Your task to perform on an android device: Go to display settings Image 0: 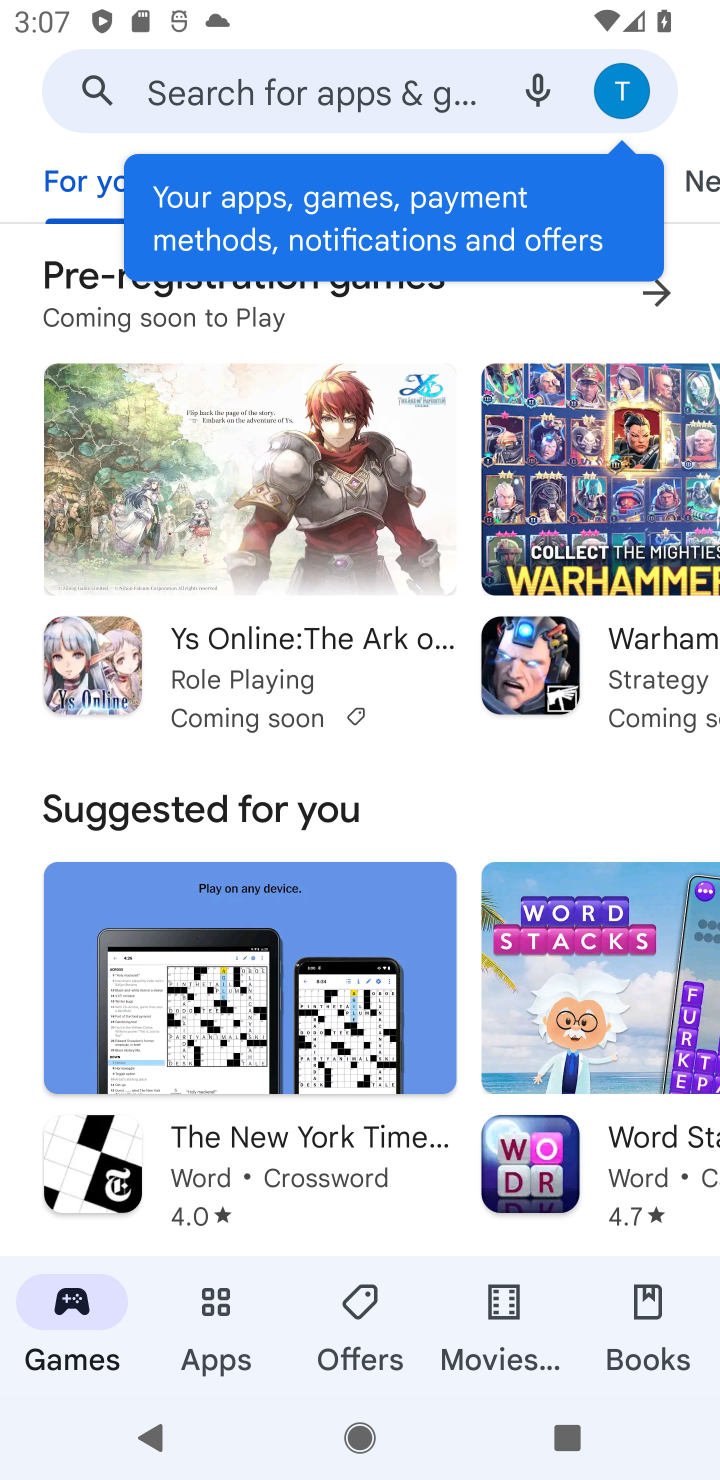
Step 0: press home button
Your task to perform on an android device: Go to display settings Image 1: 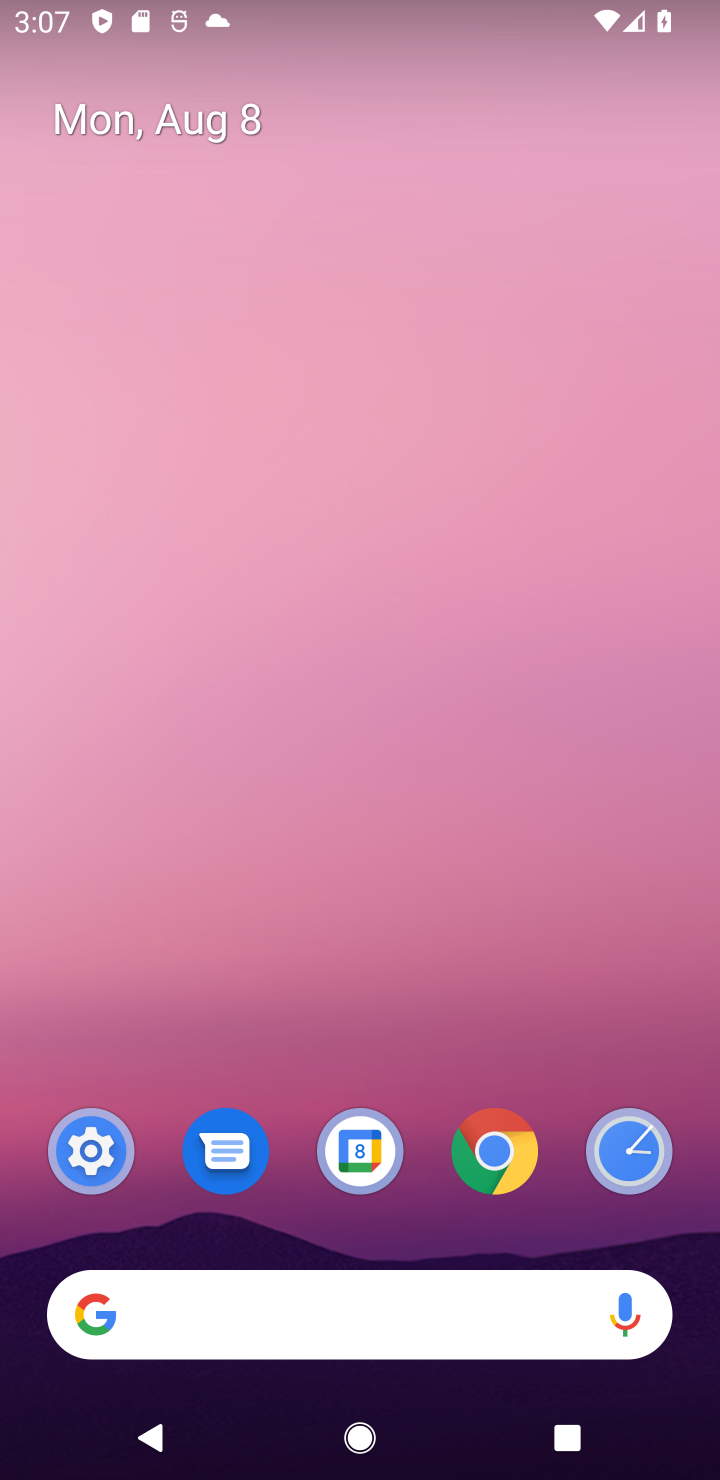
Step 1: click (95, 1120)
Your task to perform on an android device: Go to display settings Image 2: 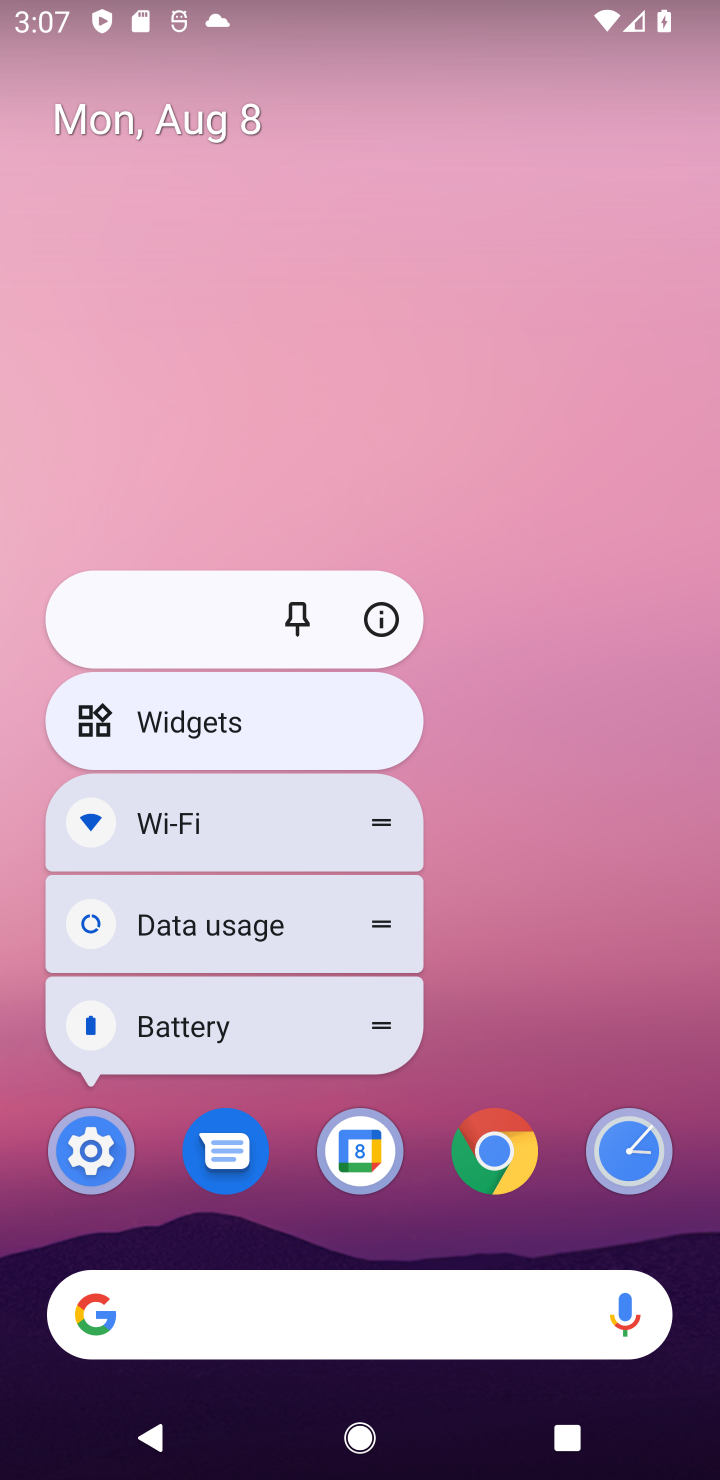
Step 2: click (84, 1123)
Your task to perform on an android device: Go to display settings Image 3: 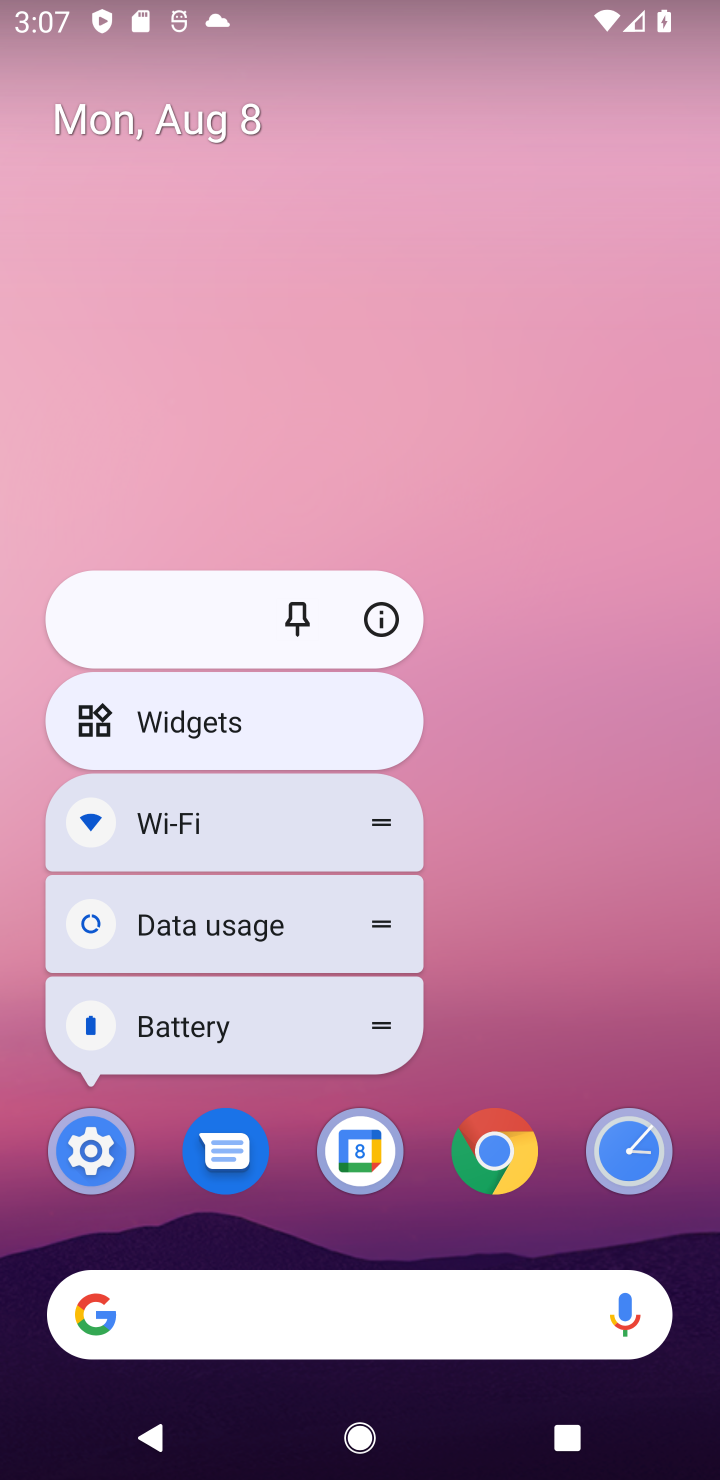
Step 3: click (89, 1163)
Your task to perform on an android device: Go to display settings Image 4: 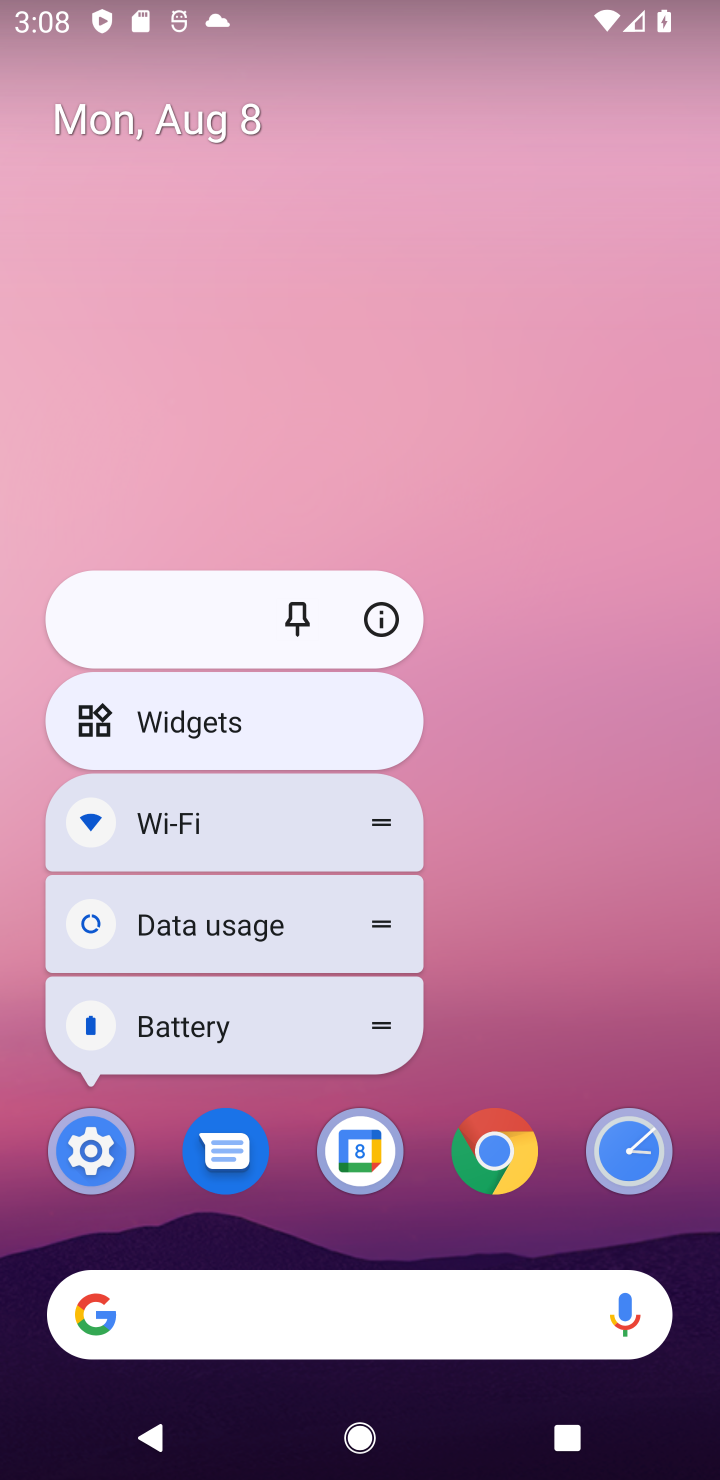
Step 4: click (96, 1158)
Your task to perform on an android device: Go to display settings Image 5: 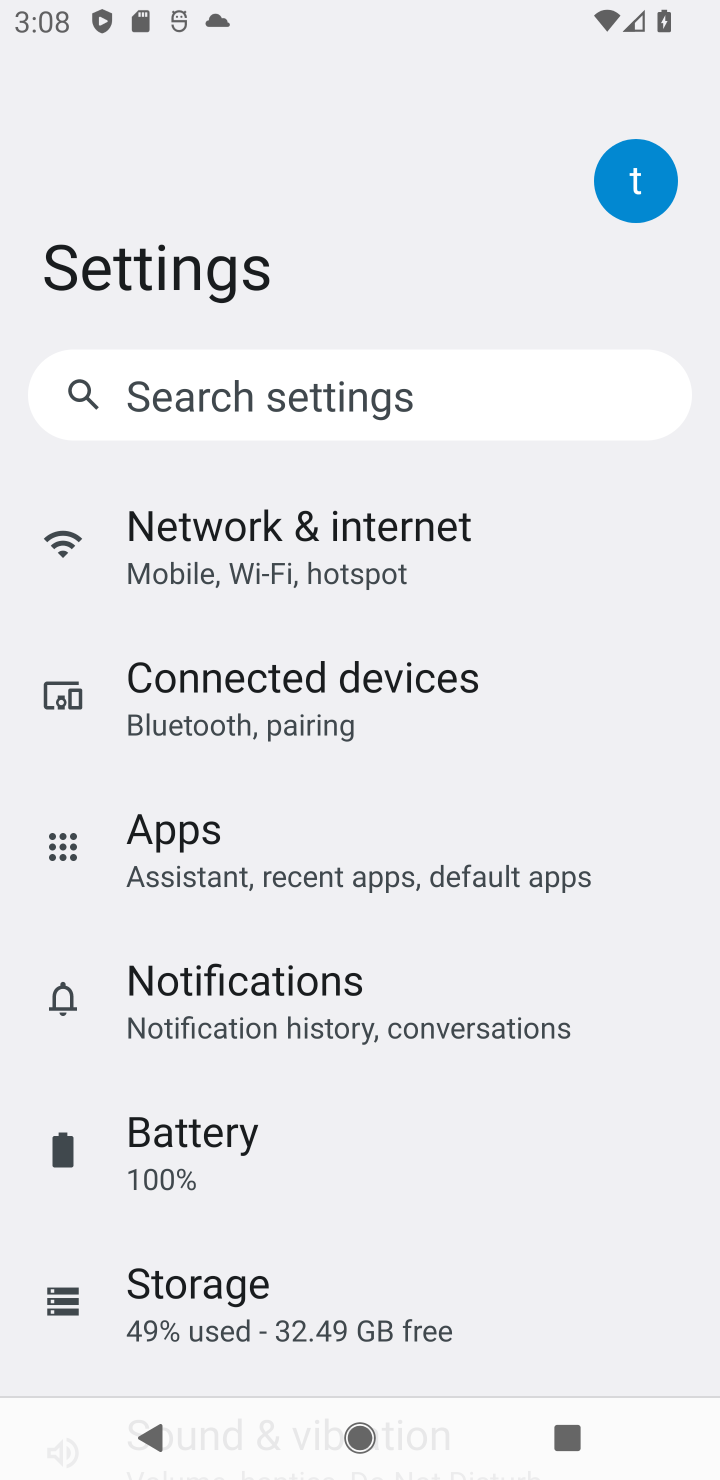
Step 5: drag from (273, 1026) to (426, 438)
Your task to perform on an android device: Go to display settings Image 6: 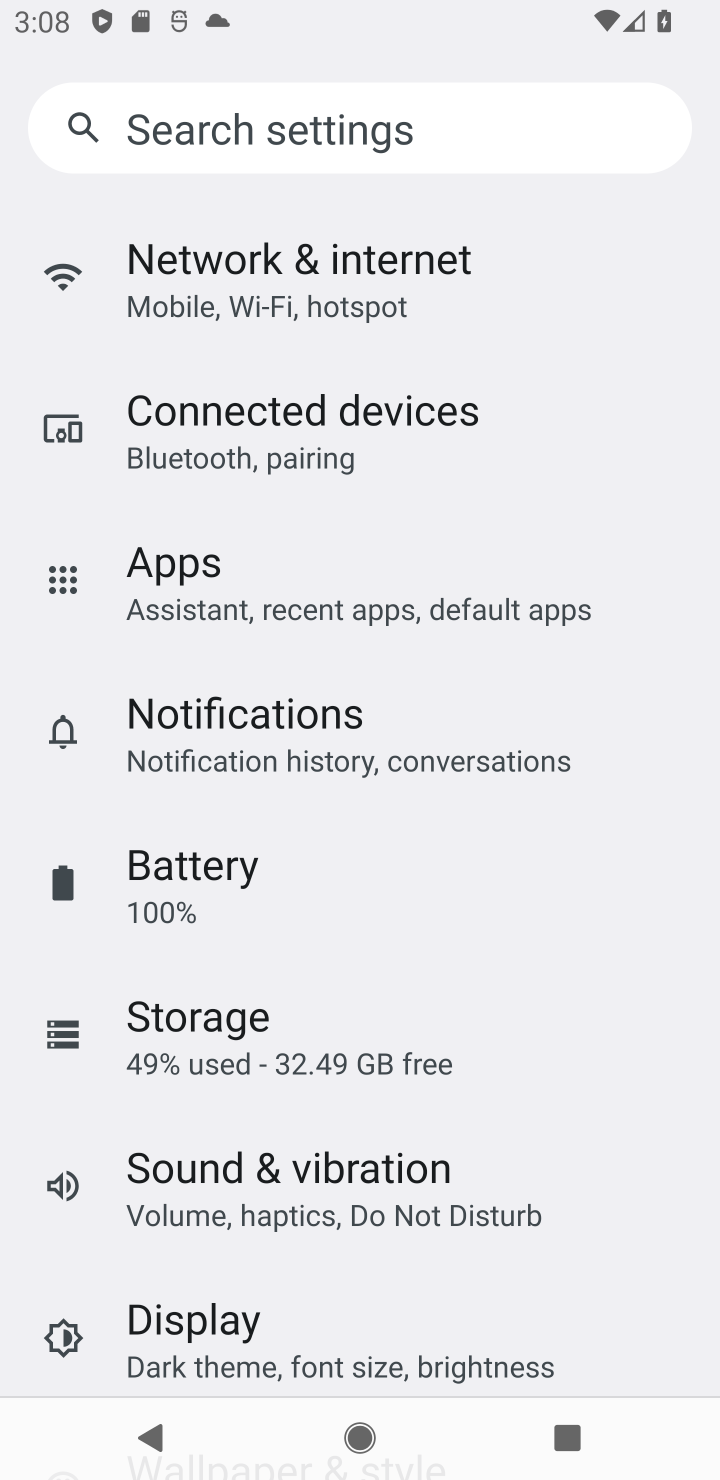
Step 6: drag from (344, 1226) to (415, 793)
Your task to perform on an android device: Go to display settings Image 7: 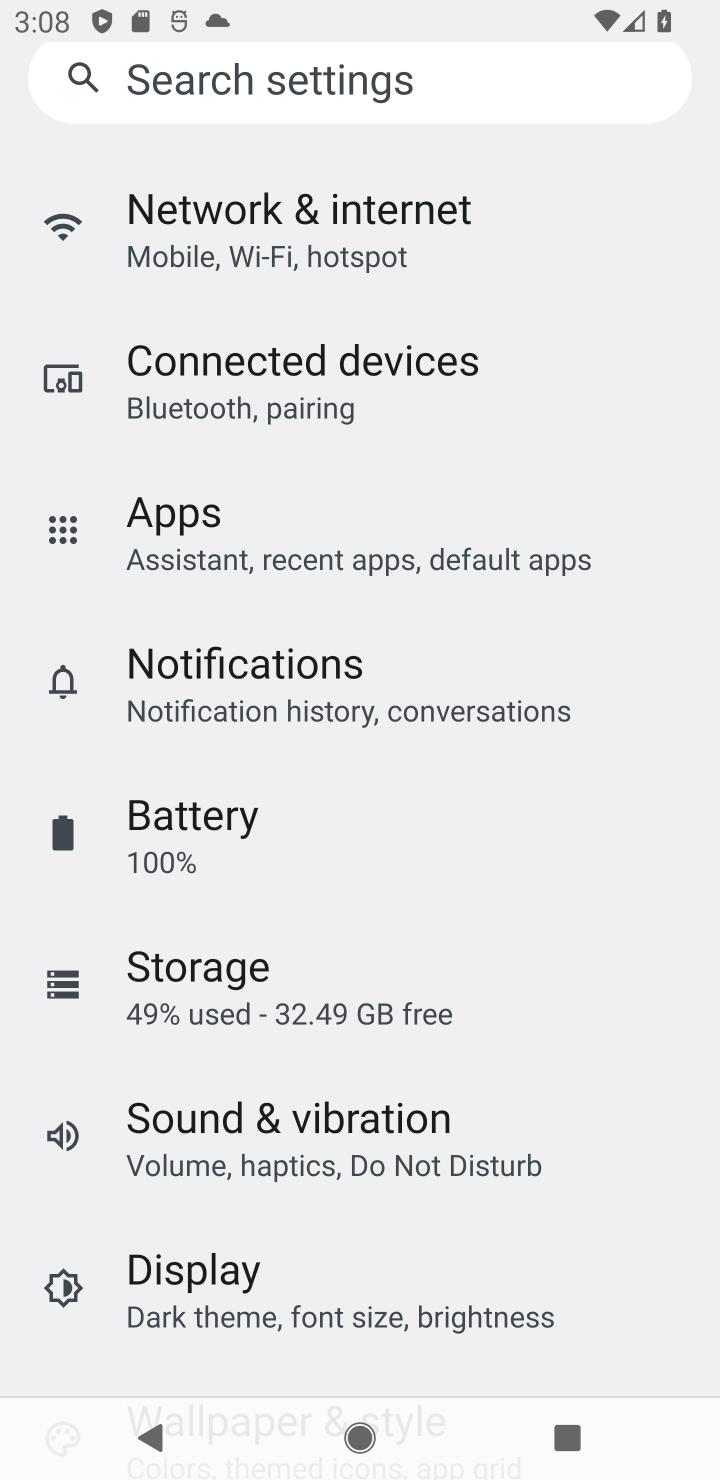
Step 7: click (187, 1310)
Your task to perform on an android device: Go to display settings Image 8: 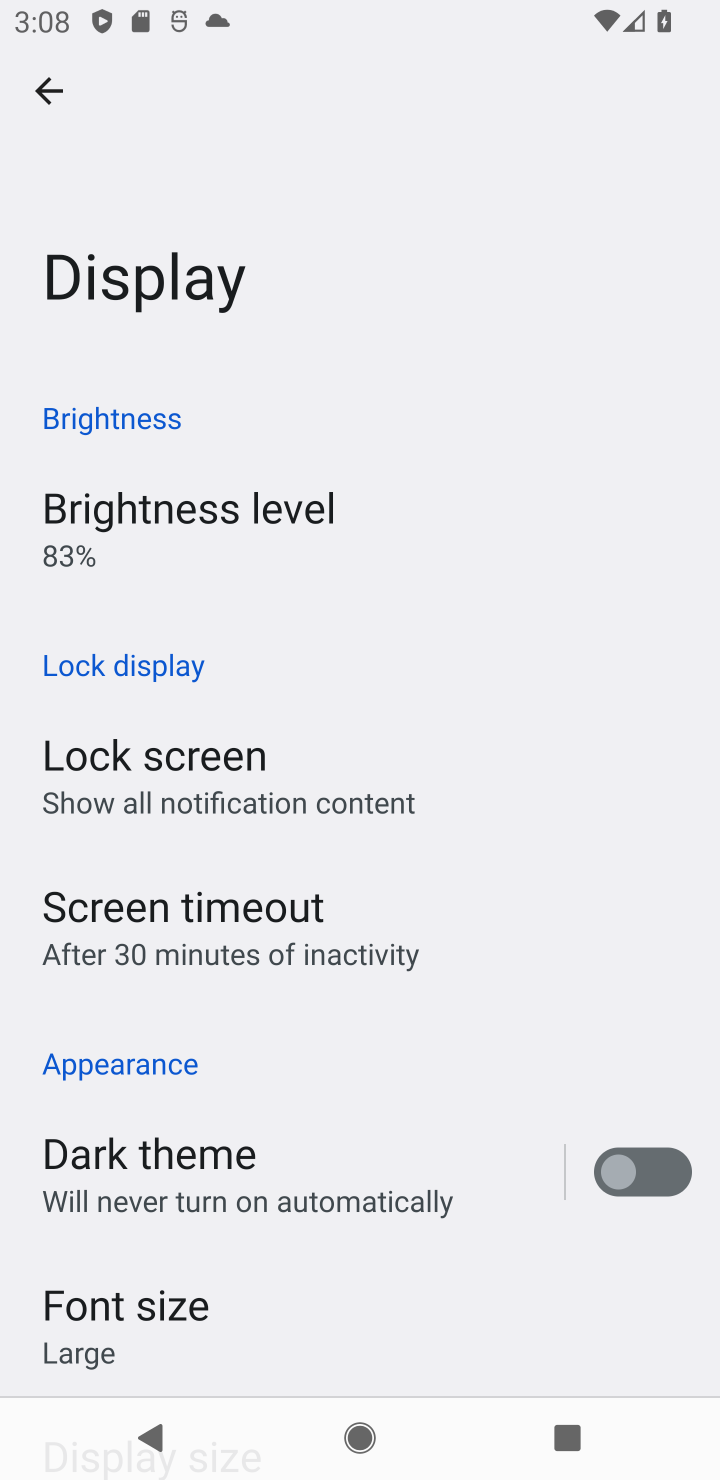
Step 8: task complete